Your task to perform on an android device: search for starred emails in the gmail app Image 0: 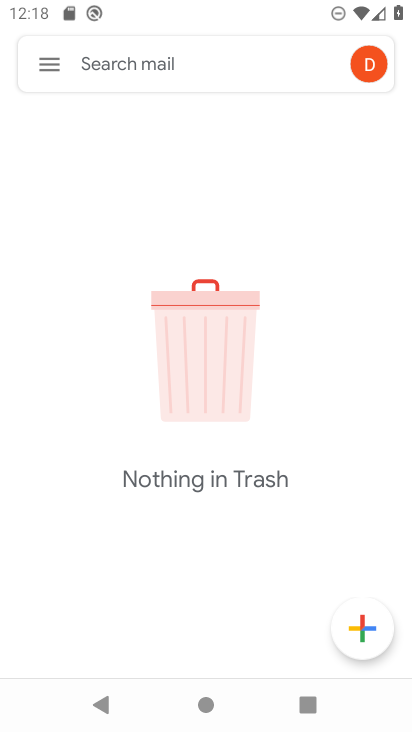
Step 0: click (47, 63)
Your task to perform on an android device: search for starred emails in the gmail app Image 1: 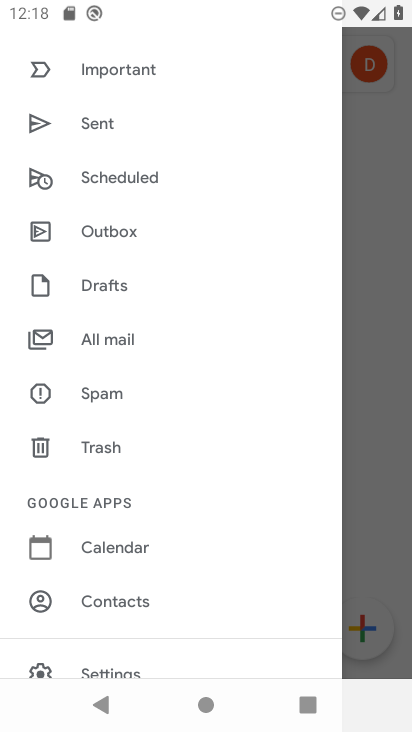
Step 1: drag from (166, 186) to (157, 481)
Your task to perform on an android device: search for starred emails in the gmail app Image 2: 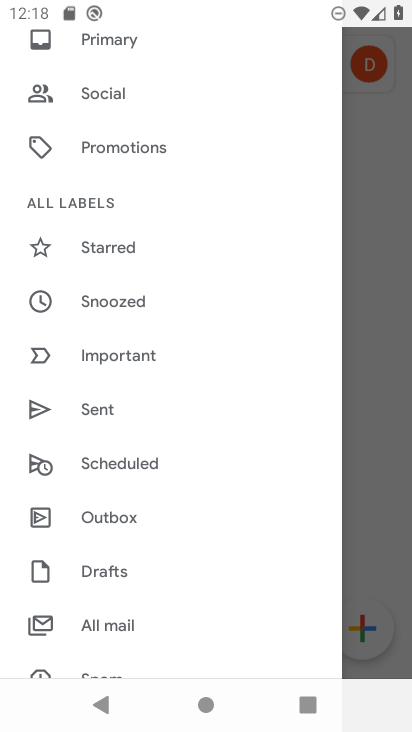
Step 2: click (114, 252)
Your task to perform on an android device: search for starred emails in the gmail app Image 3: 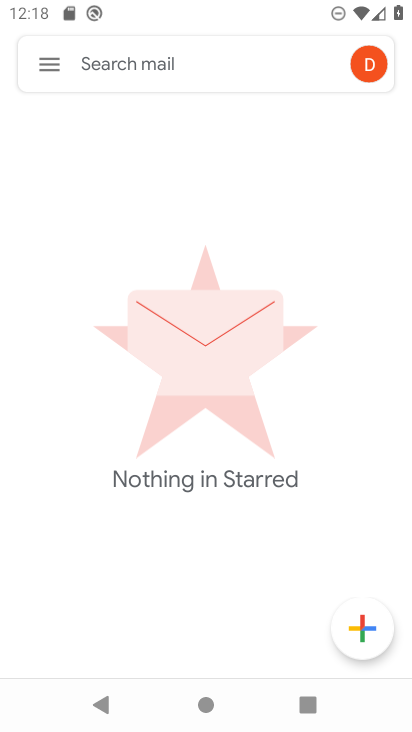
Step 3: task complete